Your task to perform on an android device: Open Maps and search for coffee Image 0: 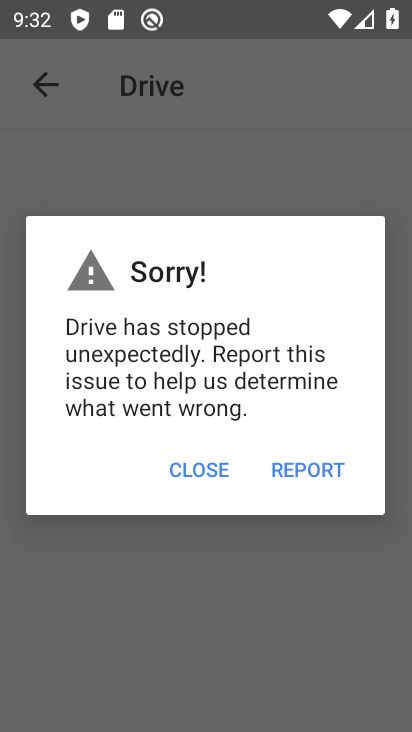
Step 0: press home button
Your task to perform on an android device: Open Maps and search for coffee Image 1: 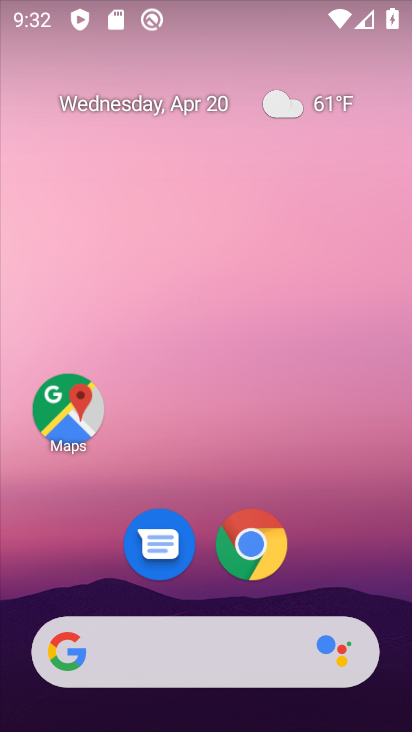
Step 1: click (64, 417)
Your task to perform on an android device: Open Maps and search for coffee Image 2: 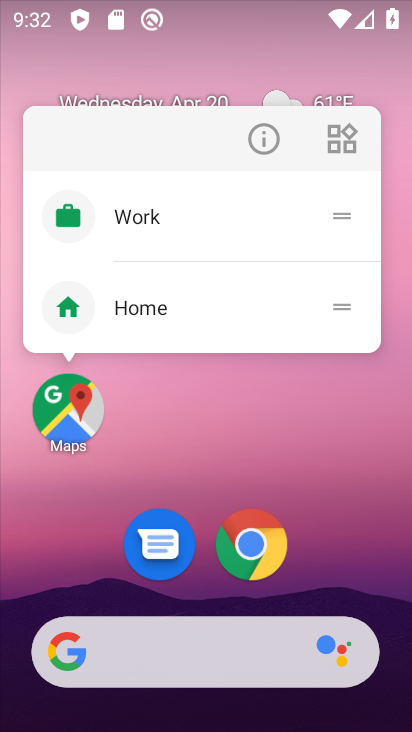
Step 2: click (86, 436)
Your task to perform on an android device: Open Maps and search for coffee Image 3: 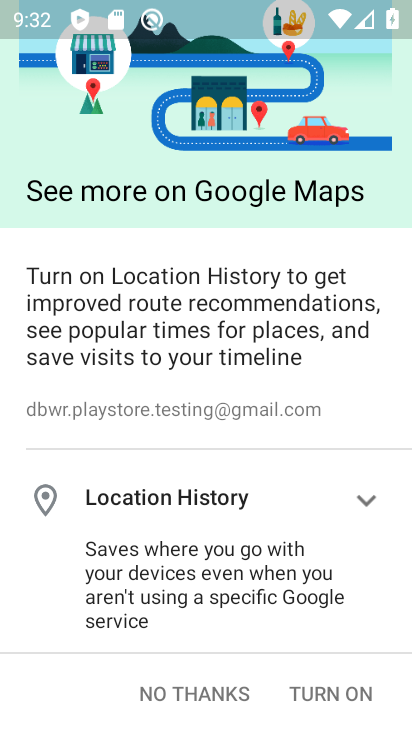
Step 3: click (223, 697)
Your task to perform on an android device: Open Maps and search for coffee Image 4: 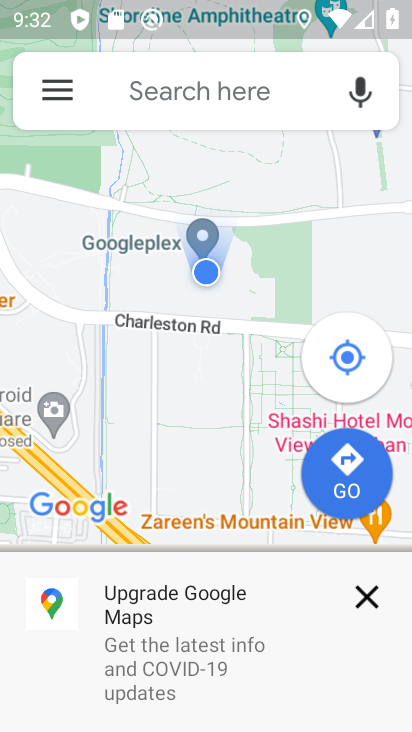
Step 4: click (179, 83)
Your task to perform on an android device: Open Maps and search for coffee Image 5: 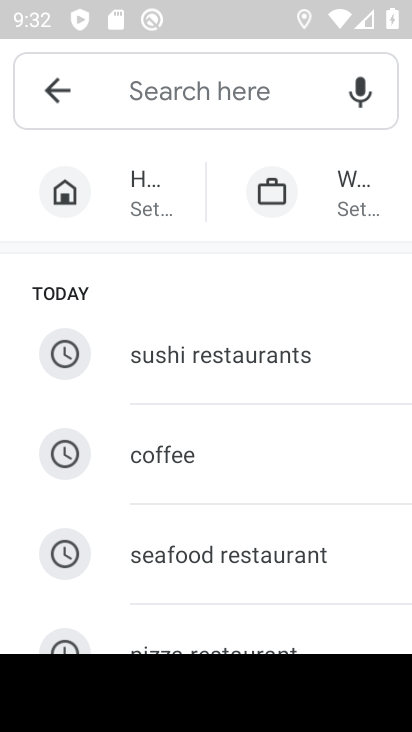
Step 5: click (268, 471)
Your task to perform on an android device: Open Maps and search for coffee Image 6: 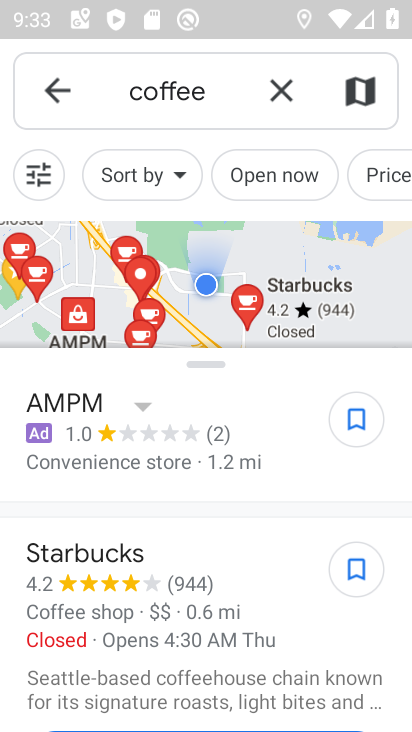
Step 6: task complete